Your task to perform on an android device: set an alarm Image 0: 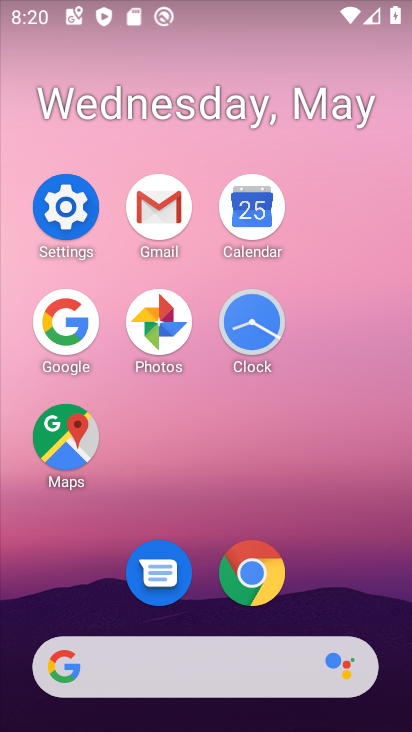
Step 0: click (237, 324)
Your task to perform on an android device: set an alarm Image 1: 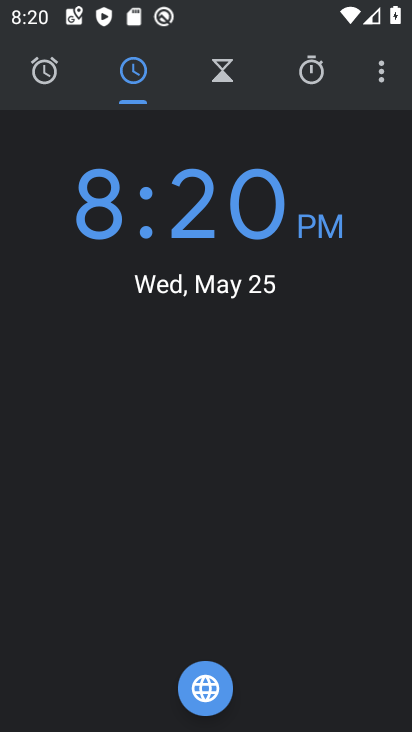
Step 1: click (46, 77)
Your task to perform on an android device: set an alarm Image 2: 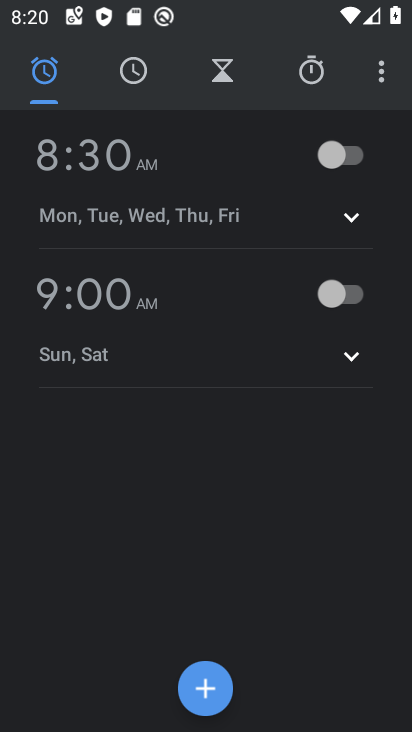
Step 2: click (335, 163)
Your task to perform on an android device: set an alarm Image 3: 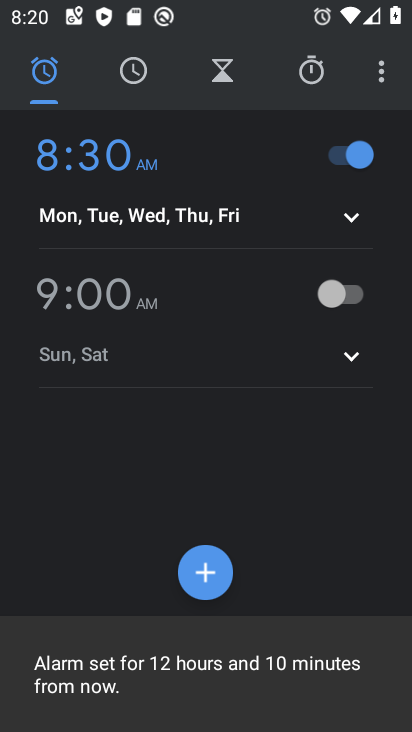
Step 3: task complete